Your task to perform on an android device: remove spam from my inbox in the gmail app Image 0: 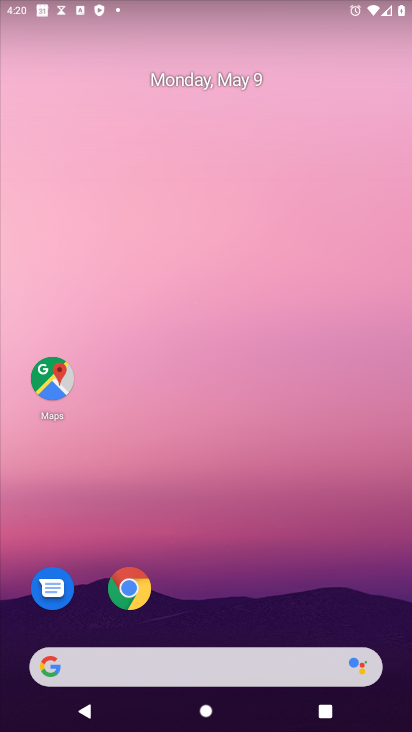
Step 0: drag from (263, 515) to (211, 110)
Your task to perform on an android device: remove spam from my inbox in the gmail app Image 1: 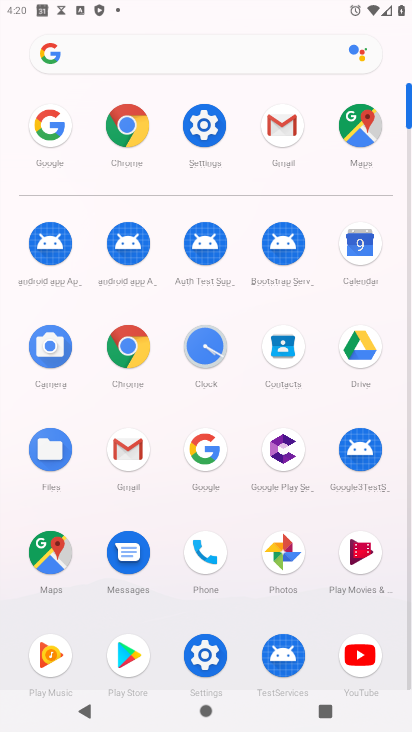
Step 1: click (135, 440)
Your task to perform on an android device: remove spam from my inbox in the gmail app Image 2: 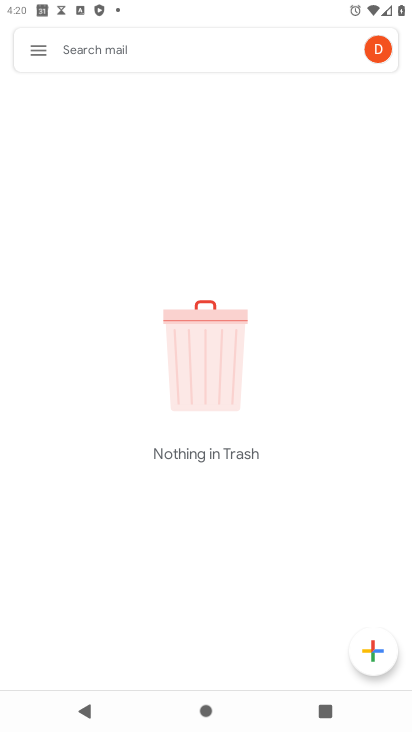
Step 2: click (32, 38)
Your task to perform on an android device: remove spam from my inbox in the gmail app Image 3: 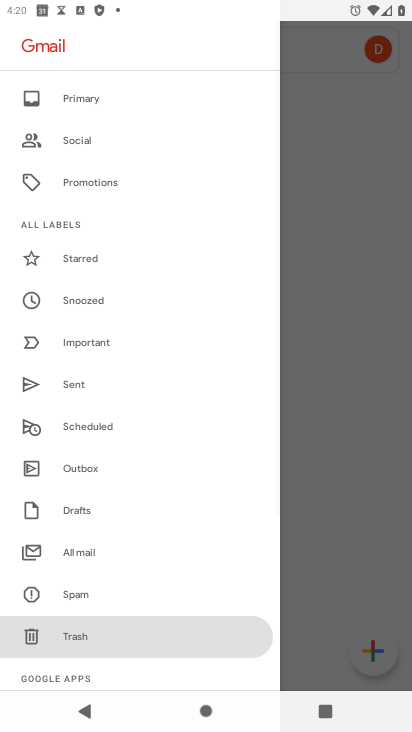
Step 3: click (106, 585)
Your task to perform on an android device: remove spam from my inbox in the gmail app Image 4: 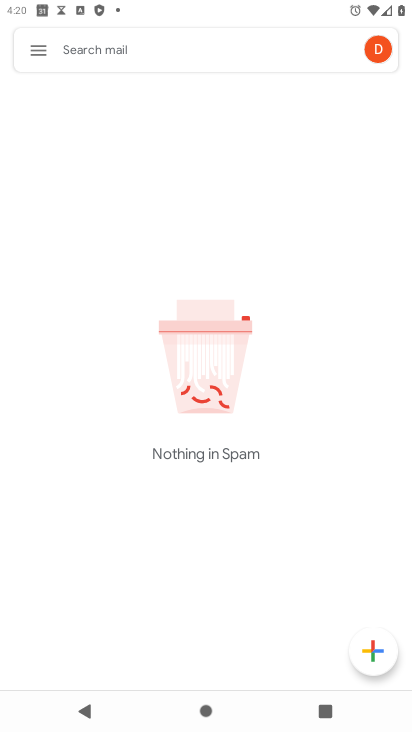
Step 4: task complete